Your task to perform on an android device: turn off location history Image 0: 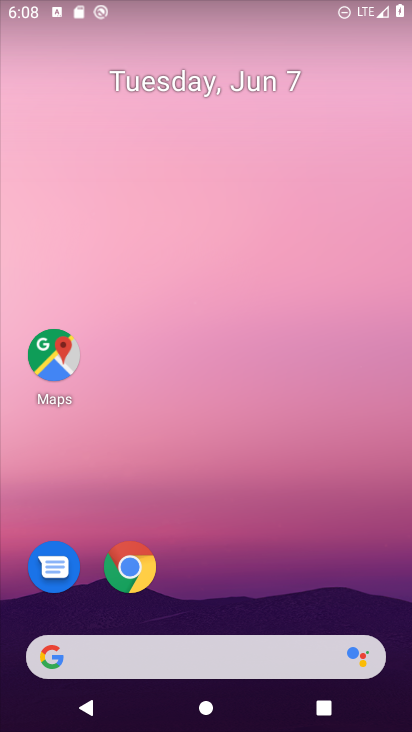
Step 0: drag from (154, 672) to (150, 142)
Your task to perform on an android device: turn off location history Image 1: 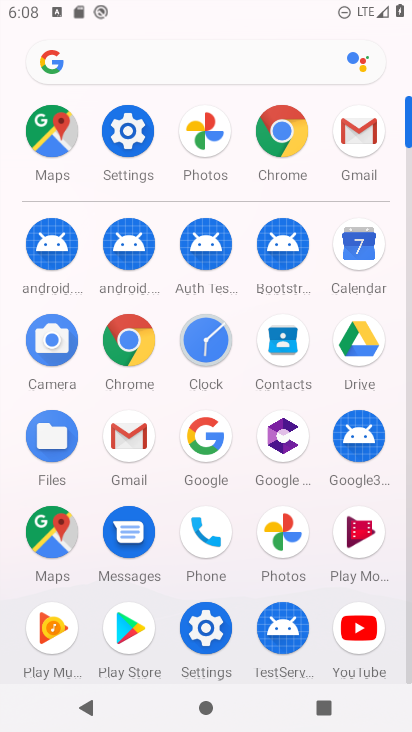
Step 1: click (135, 123)
Your task to perform on an android device: turn off location history Image 2: 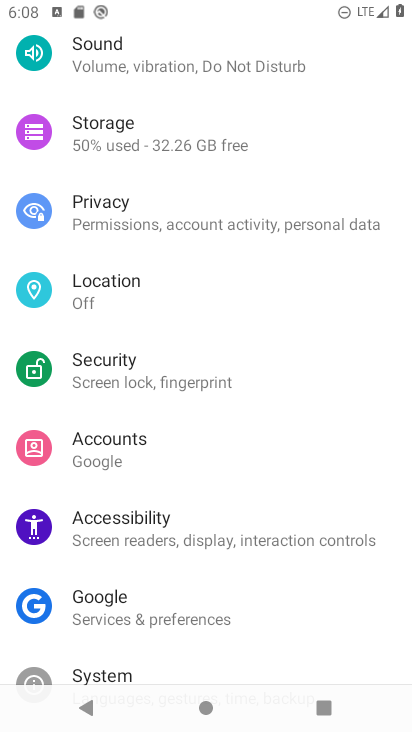
Step 2: drag from (268, 650) to (269, 313)
Your task to perform on an android device: turn off location history Image 3: 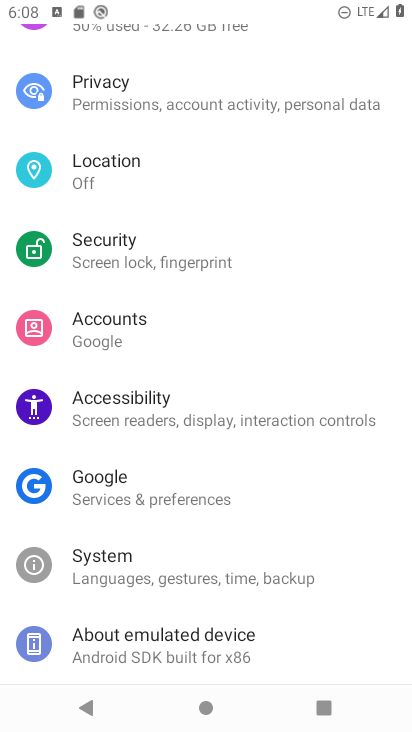
Step 3: click (143, 165)
Your task to perform on an android device: turn off location history Image 4: 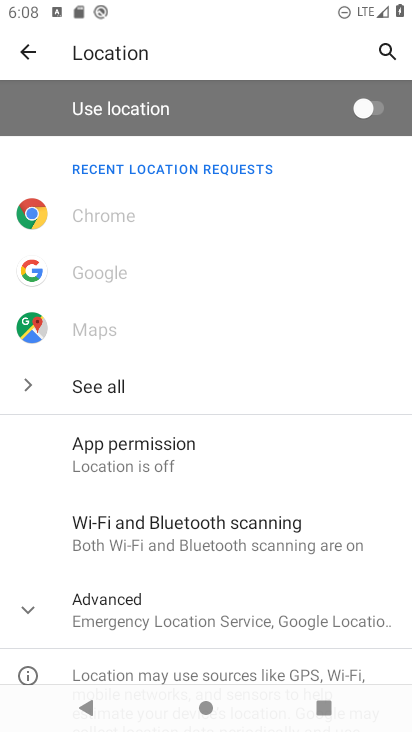
Step 4: click (205, 619)
Your task to perform on an android device: turn off location history Image 5: 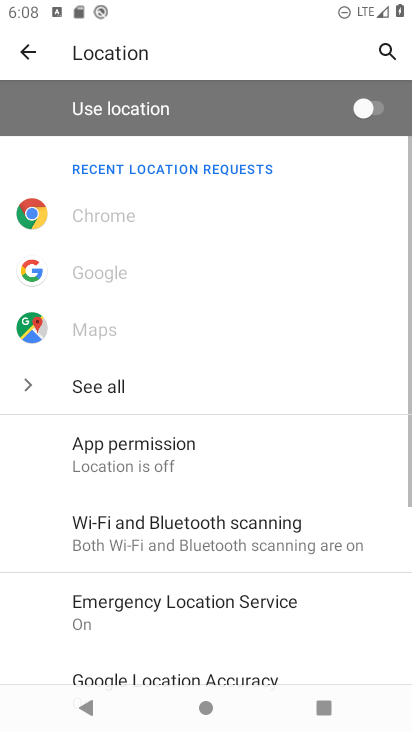
Step 5: drag from (205, 619) to (252, 212)
Your task to perform on an android device: turn off location history Image 6: 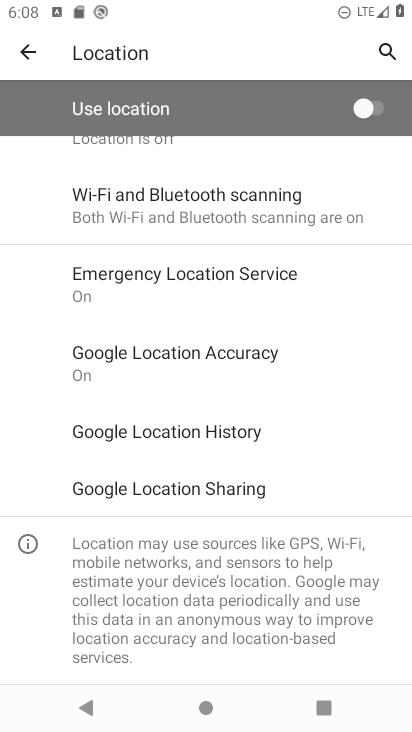
Step 6: click (238, 427)
Your task to perform on an android device: turn off location history Image 7: 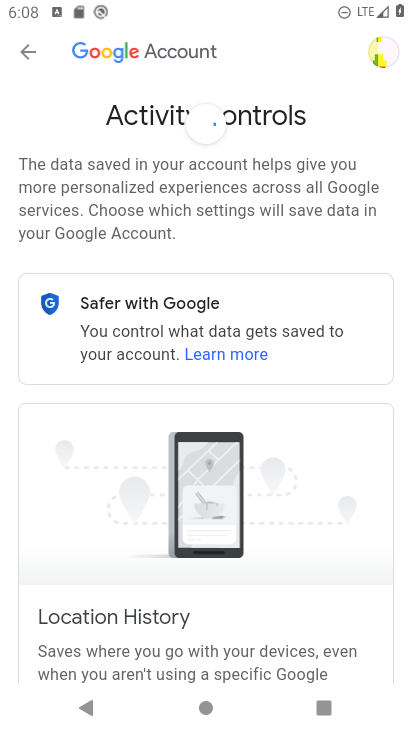
Step 7: task complete